Your task to perform on an android device: Open network settings Image 0: 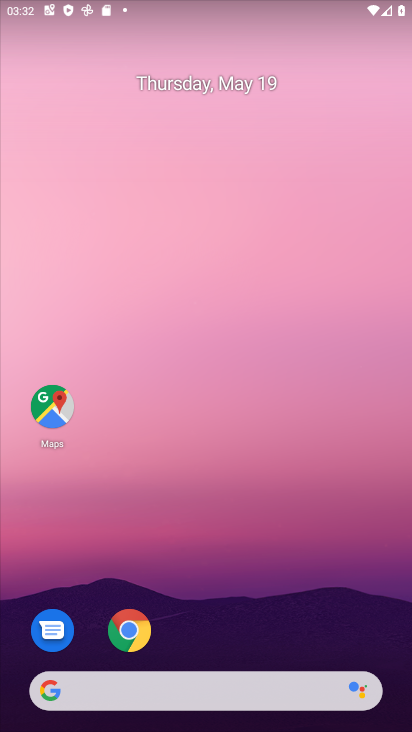
Step 0: drag from (382, 644) to (322, 92)
Your task to perform on an android device: Open network settings Image 1: 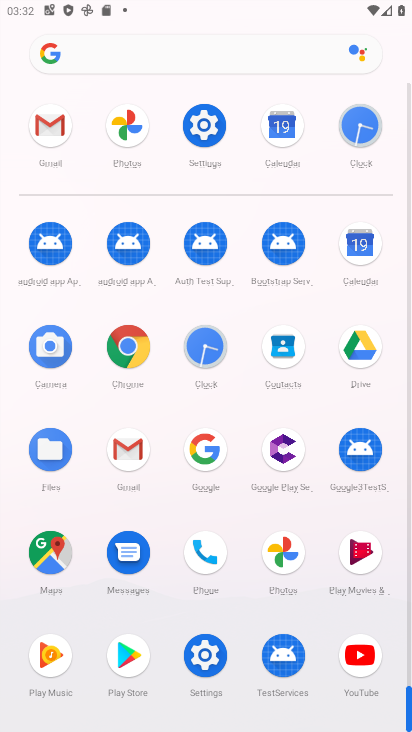
Step 1: click (204, 655)
Your task to perform on an android device: Open network settings Image 2: 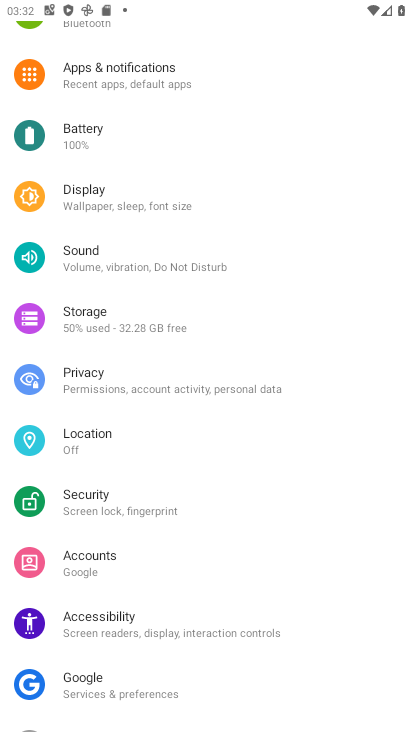
Step 2: drag from (314, 113) to (297, 405)
Your task to perform on an android device: Open network settings Image 3: 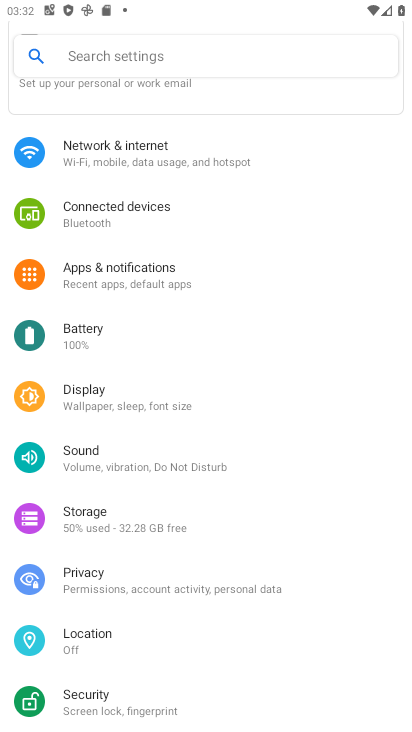
Step 3: click (104, 142)
Your task to perform on an android device: Open network settings Image 4: 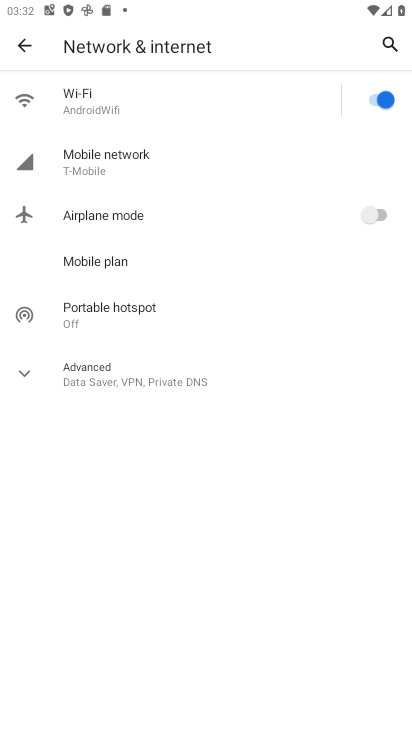
Step 4: click (29, 373)
Your task to perform on an android device: Open network settings Image 5: 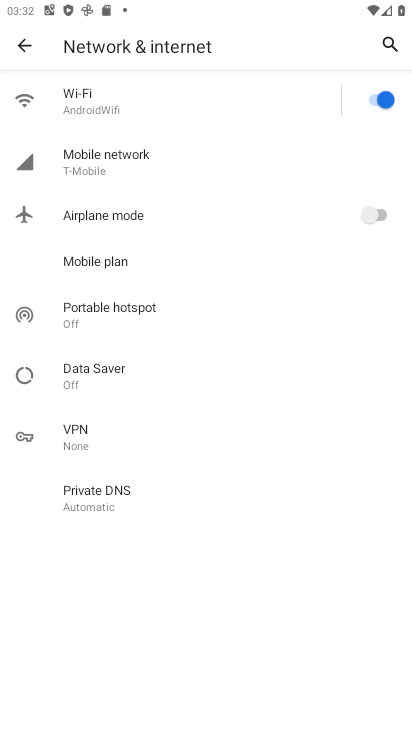
Step 5: click (106, 155)
Your task to perform on an android device: Open network settings Image 6: 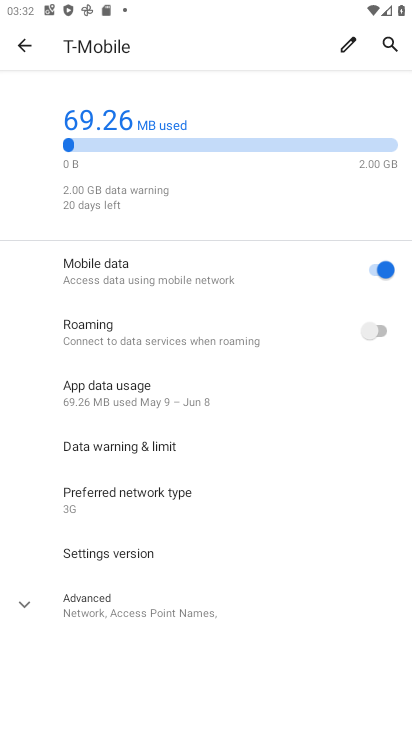
Step 6: task complete